Your task to perform on an android device: Add "macbook" to the cart on ebay.com, then select checkout. Image 0: 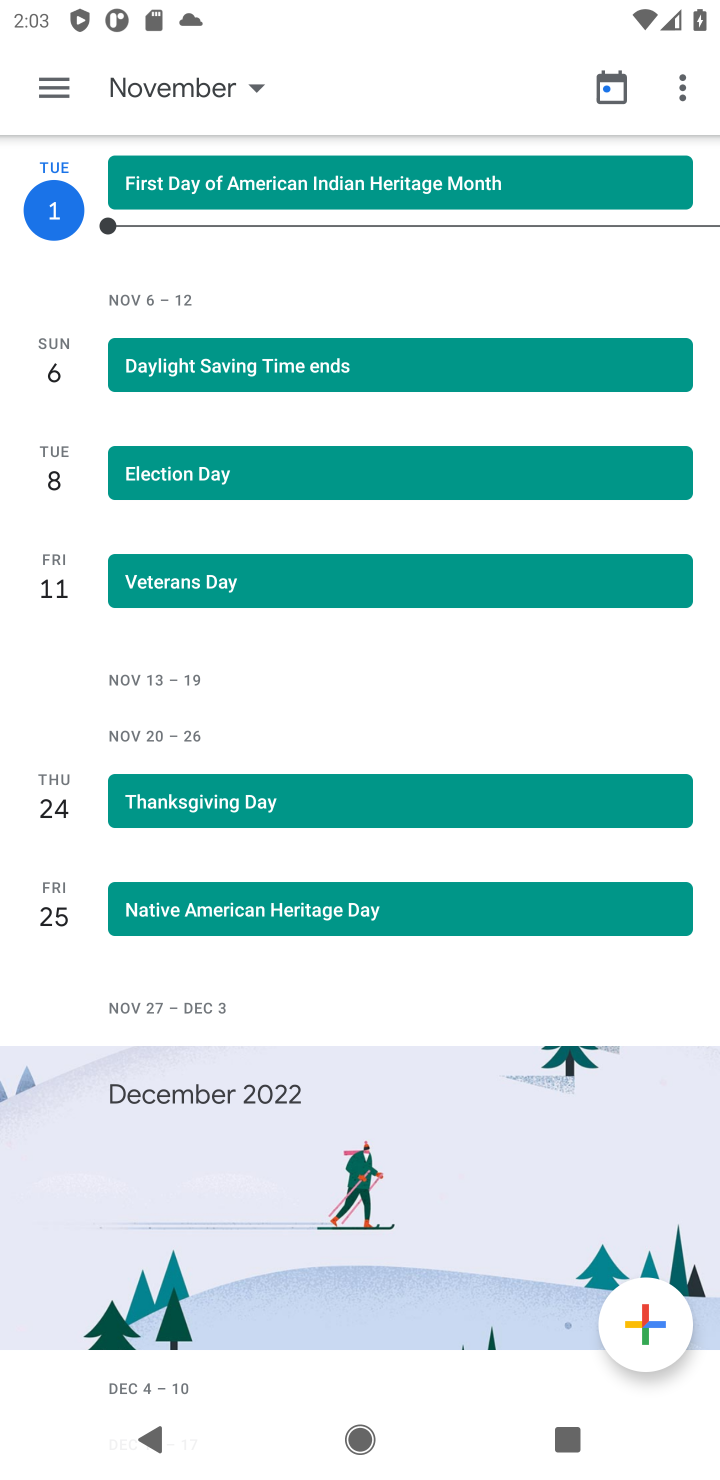
Step 0: press home button
Your task to perform on an android device: Add "macbook" to the cart on ebay.com, then select checkout. Image 1: 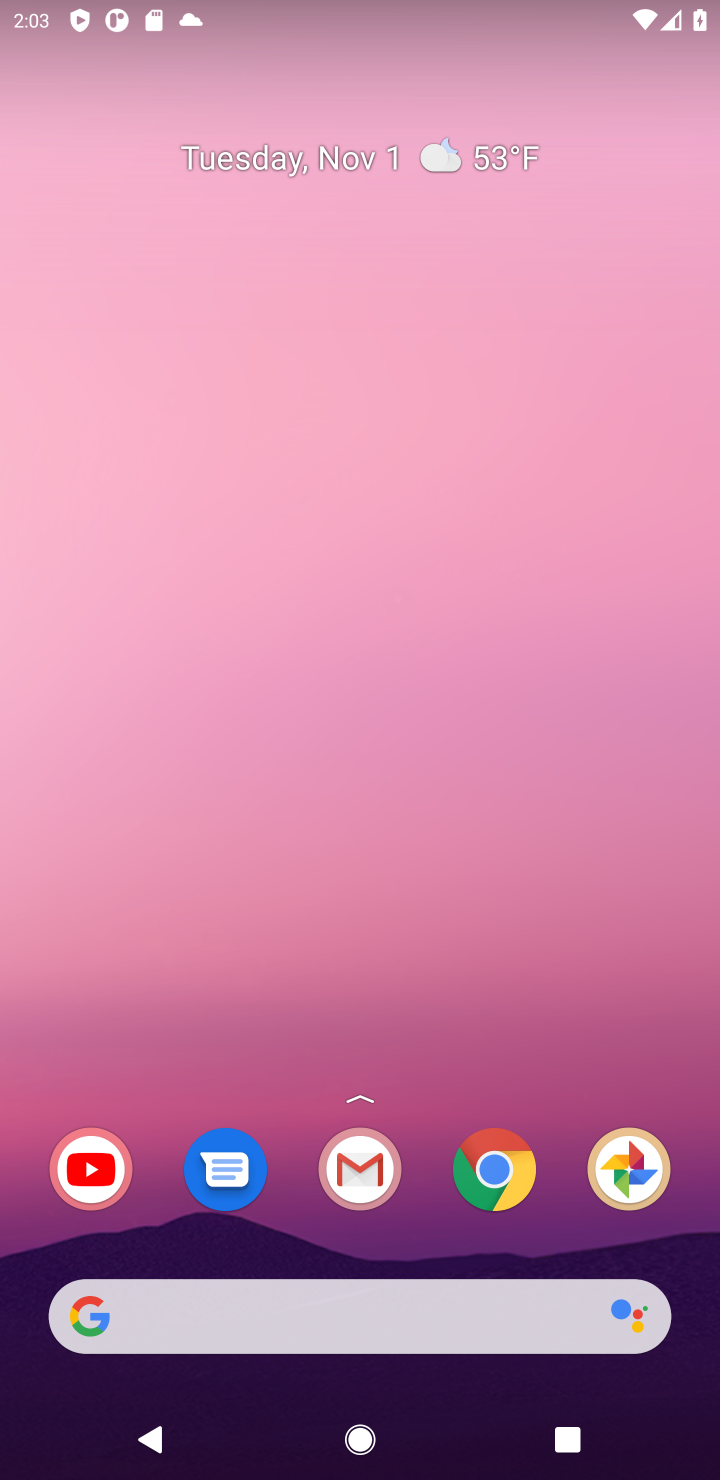
Step 1: click (498, 1190)
Your task to perform on an android device: Add "macbook" to the cart on ebay.com, then select checkout. Image 2: 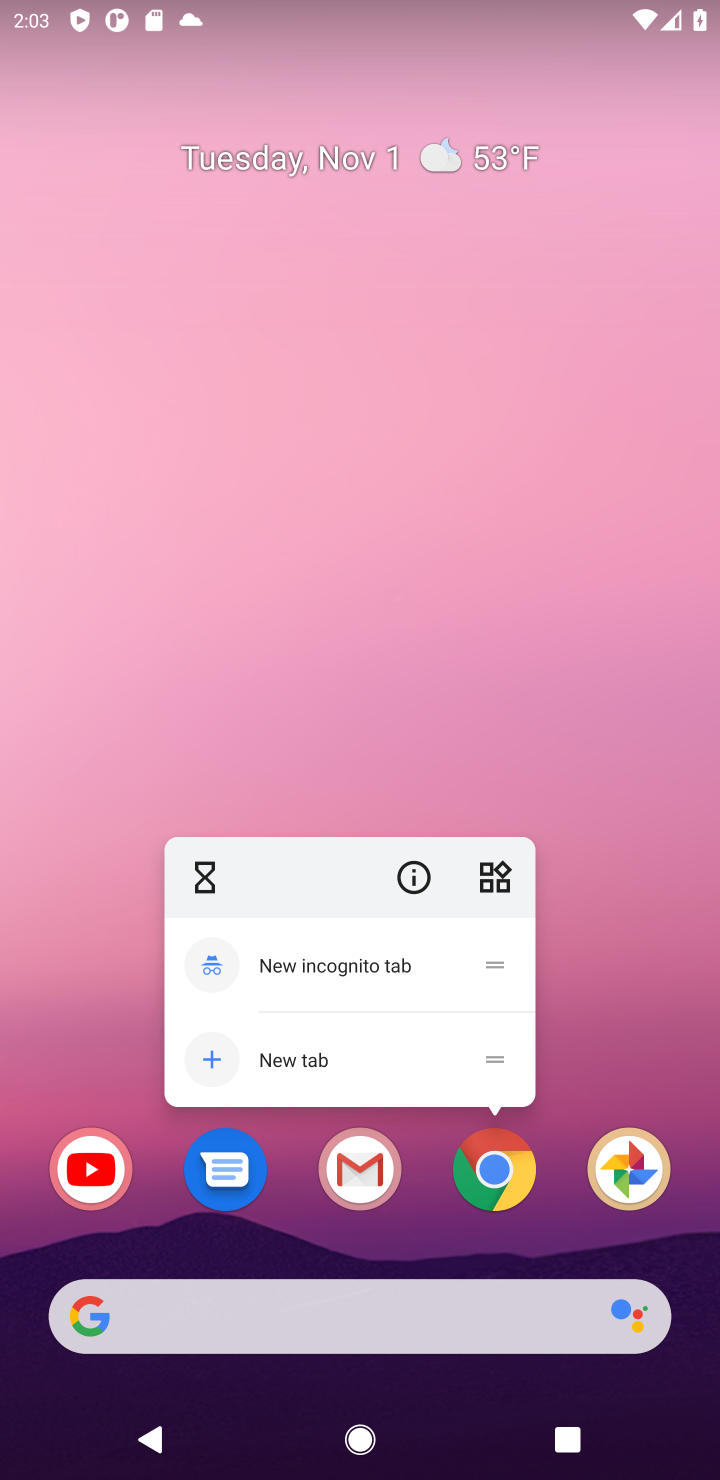
Step 2: click (498, 1190)
Your task to perform on an android device: Add "macbook" to the cart on ebay.com, then select checkout. Image 3: 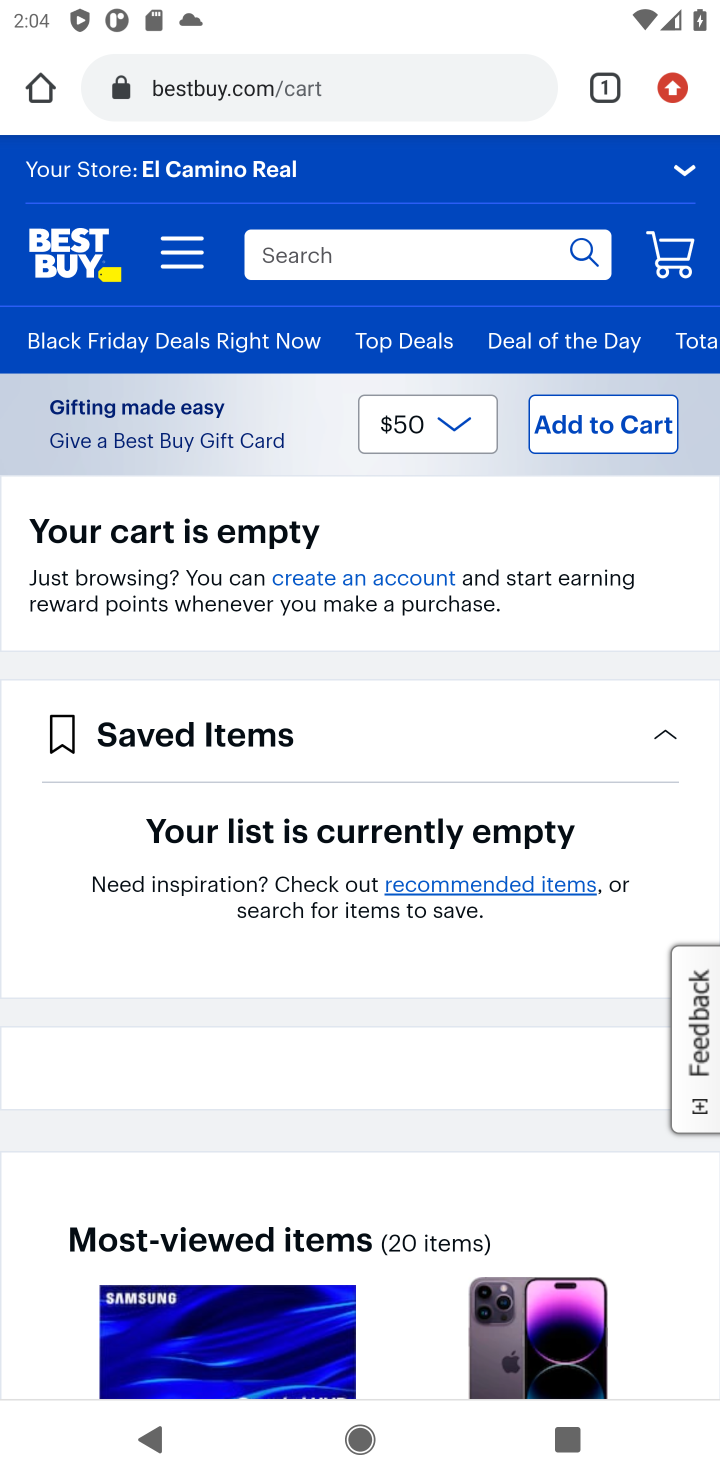
Step 3: task complete